Your task to perform on an android device: install app "Indeed Job Search" Image 0: 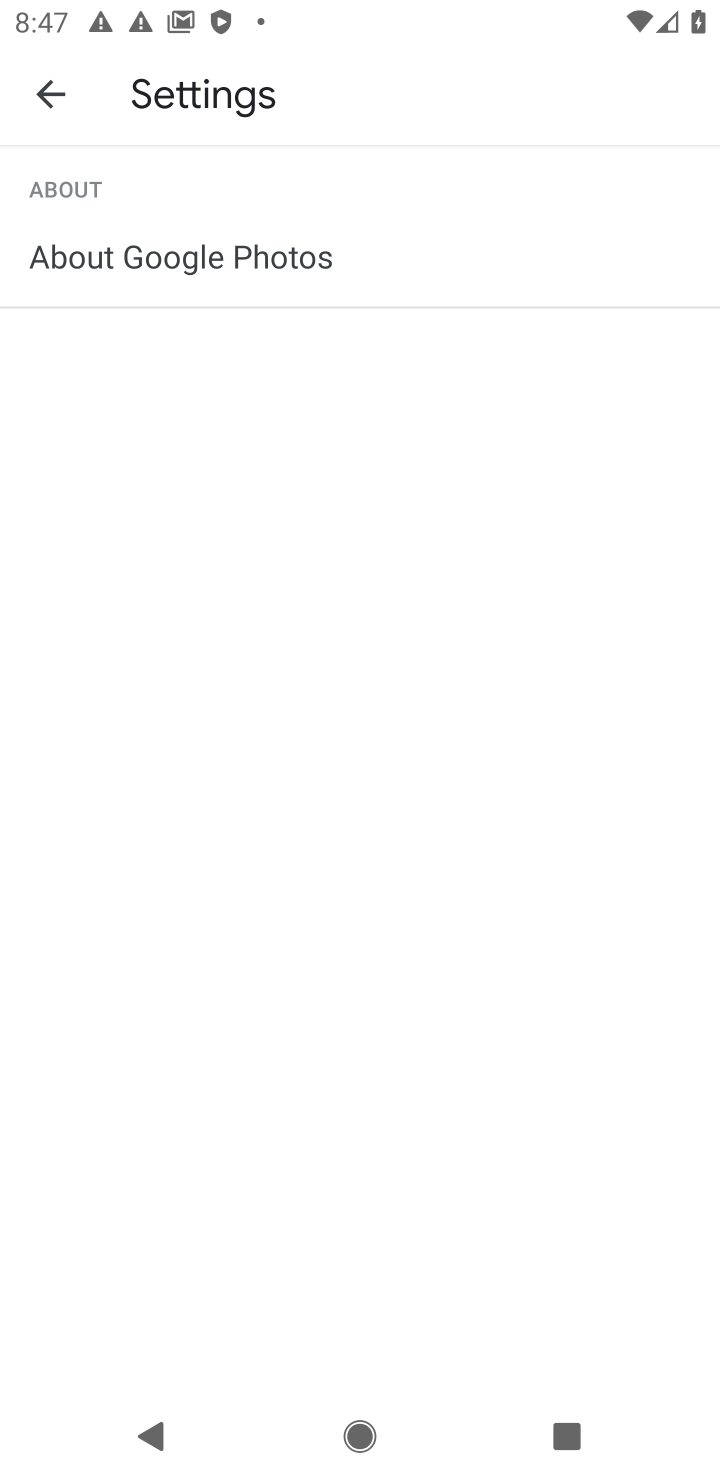
Step 0: click (57, 98)
Your task to perform on an android device: install app "Indeed Job Search" Image 1: 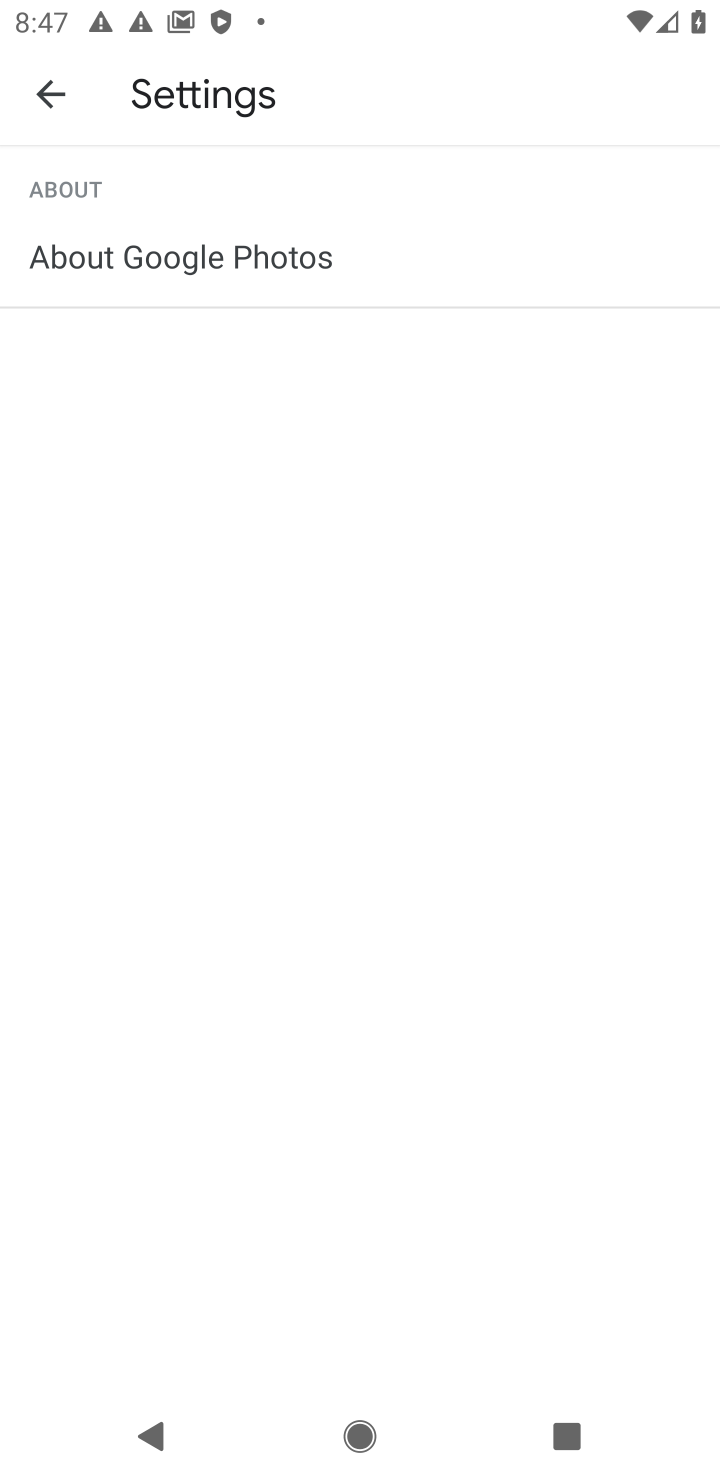
Step 1: click (57, 98)
Your task to perform on an android device: install app "Indeed Job Search" Image 2: 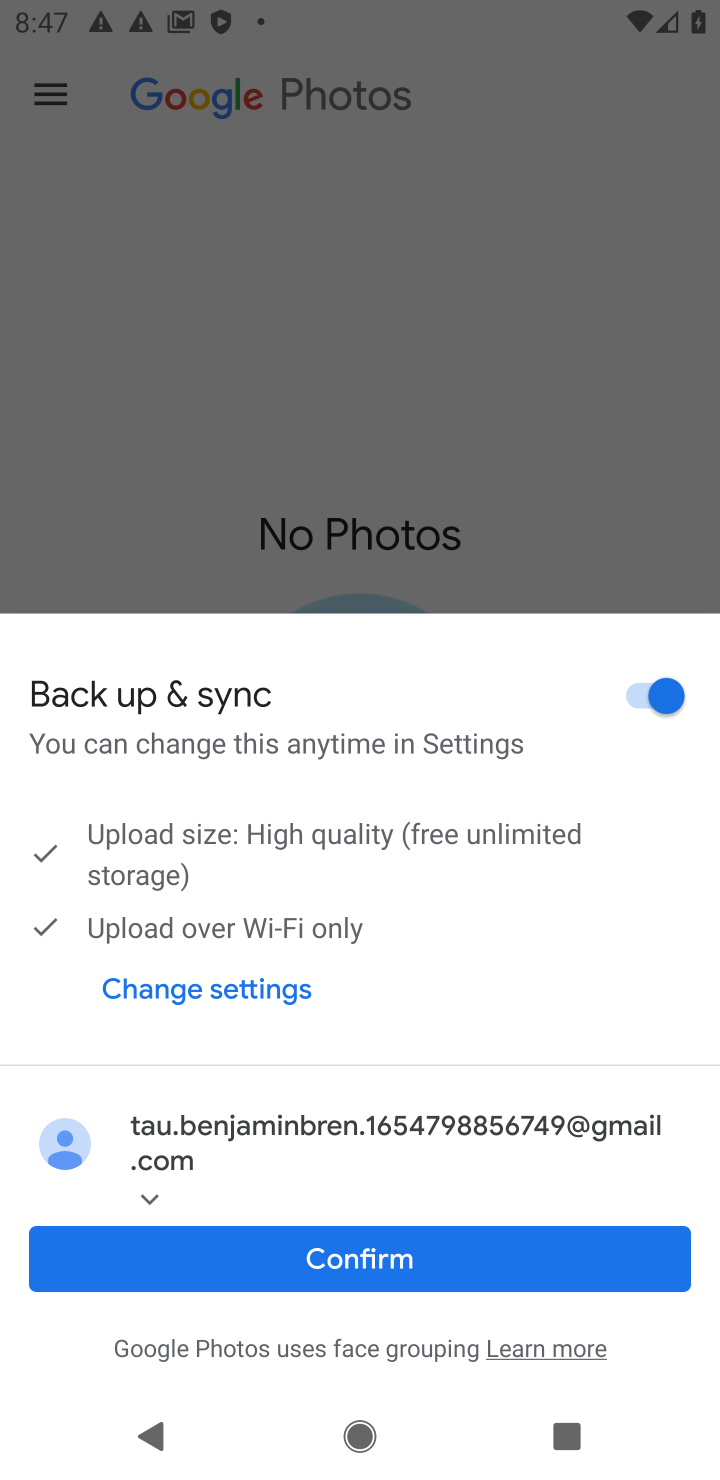
Step 2: press back button
Your task to perform on an android device: install app "Indeed Job Search" Image 3: 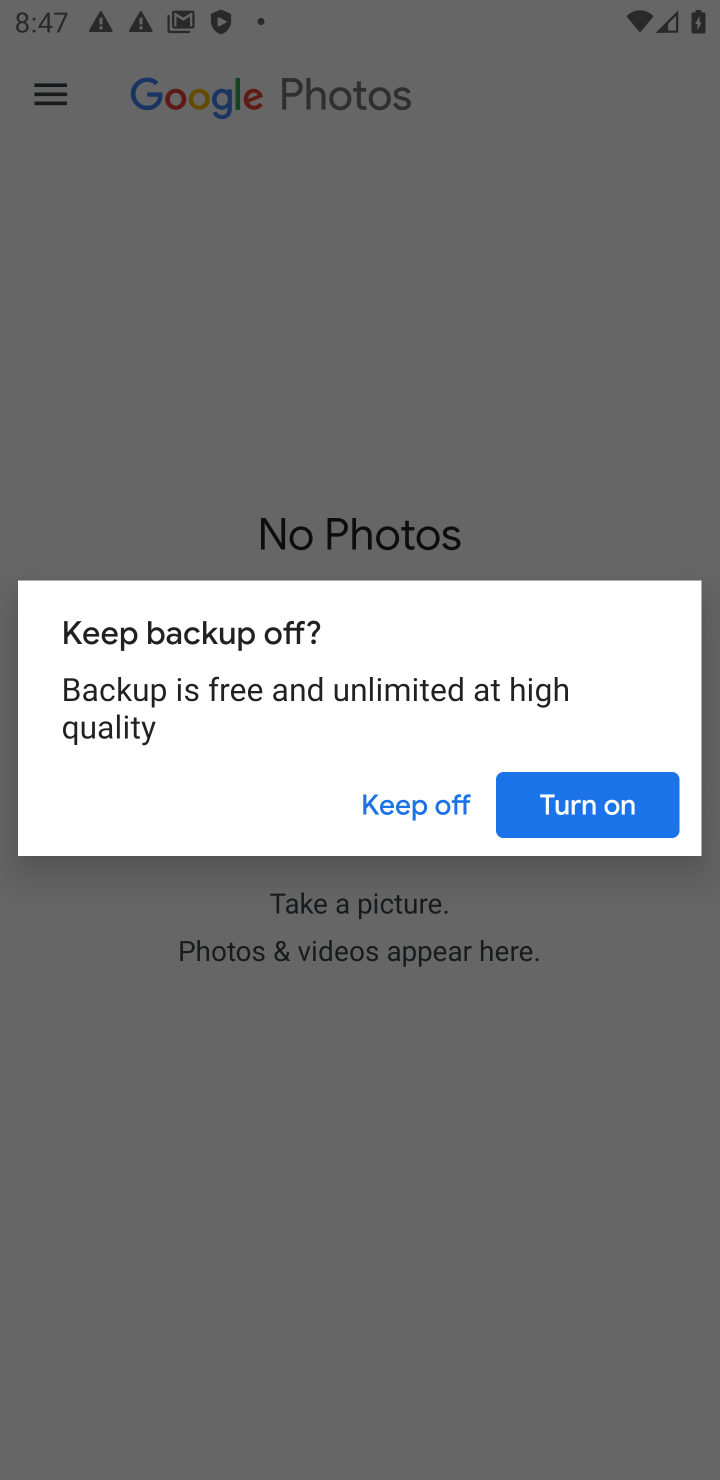
Step 3: press home button
Your task to perform on an android device: install app "Indeed Job Search" Image 4: 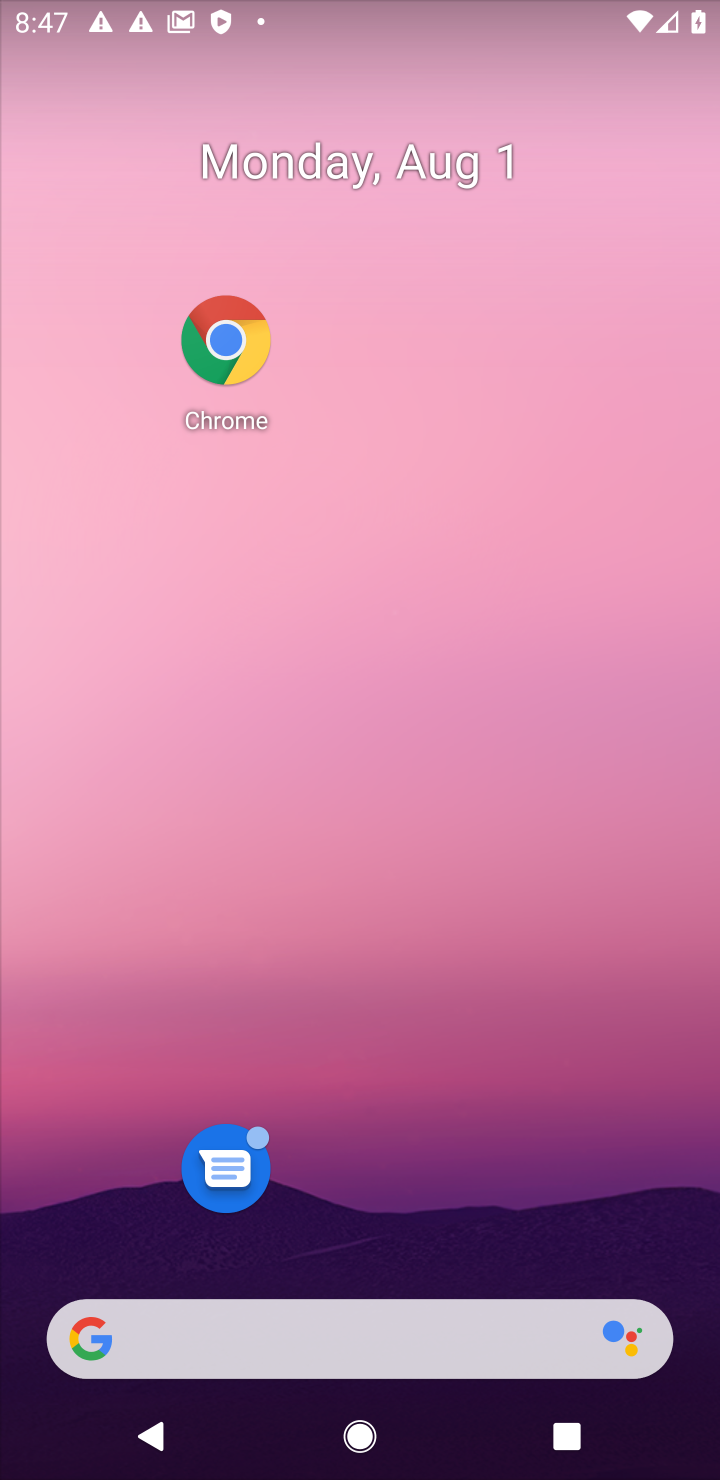
Step 4: click (375, 788)
Your task to perform on an android device: install app "Indeed Job Search" Image 5: 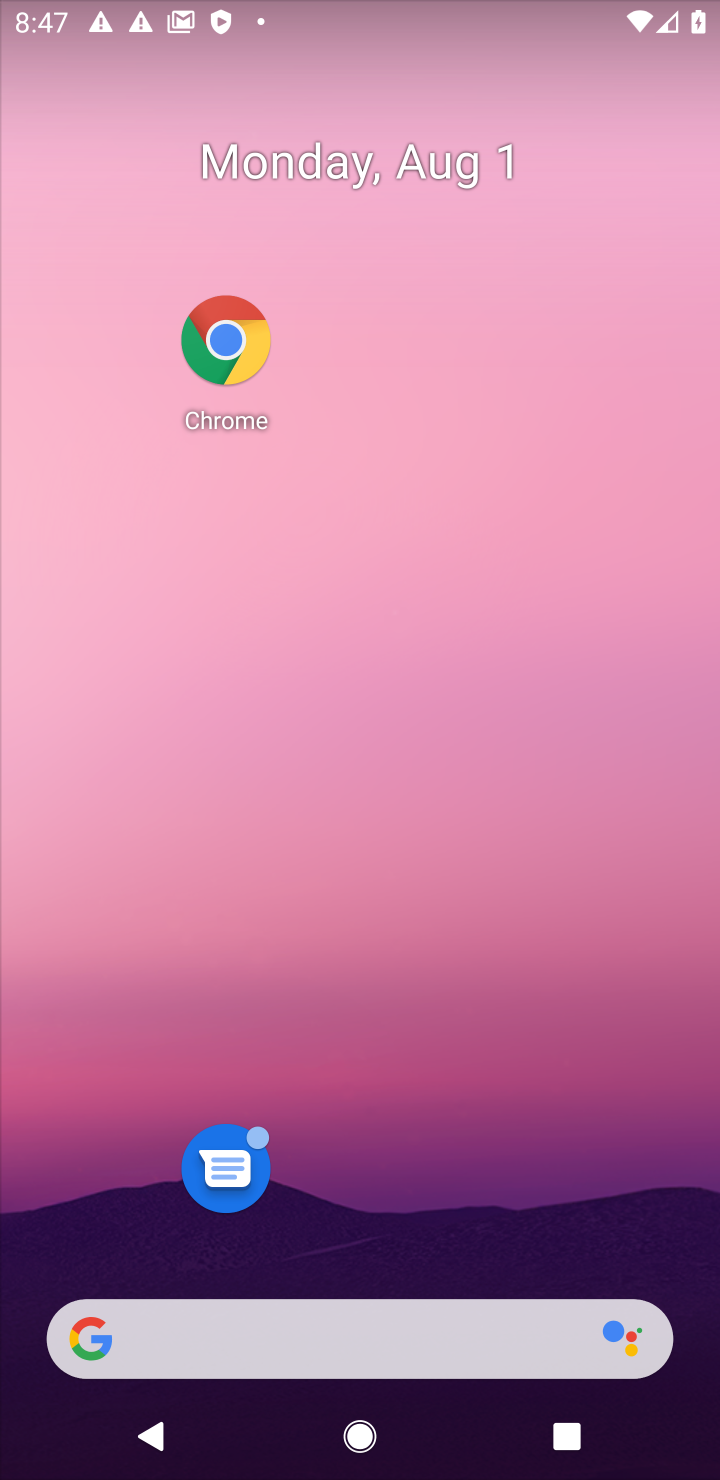
Step 5: drag from (258, 571) to (453, 114)
Your task to perform on an android device: install app "Indeed Job Search" Image 6: 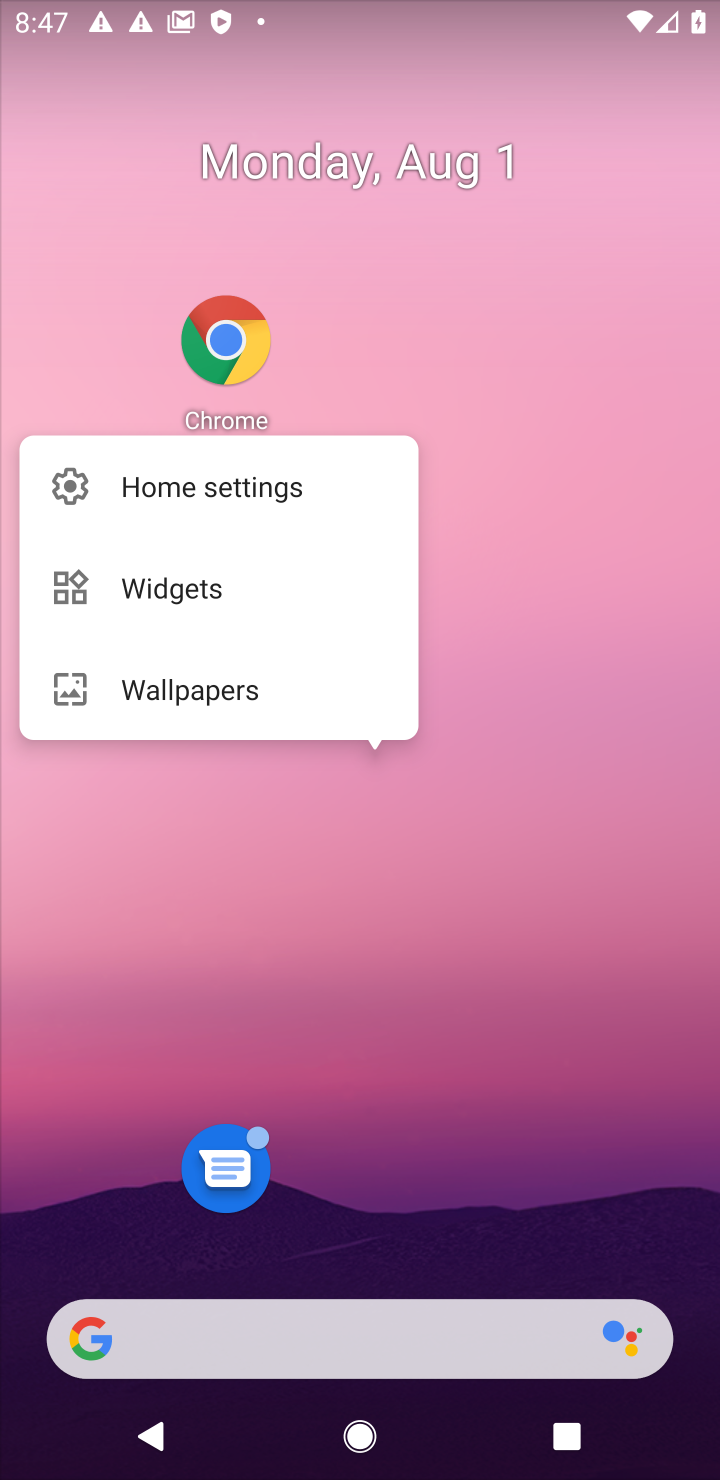
Step 6: click (191, 42)
Your task to perform on an android device: install app "Indeed Job Search" Image 7: 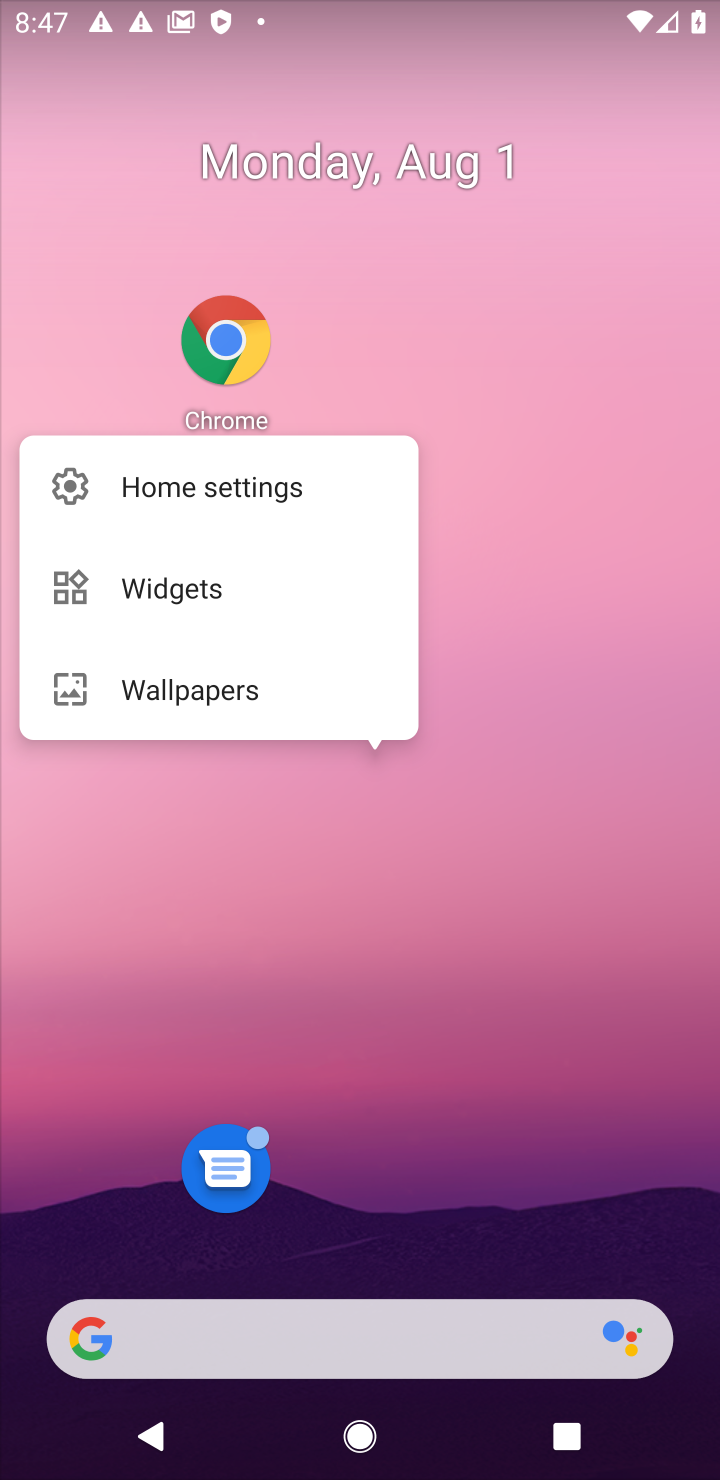
Step 7: drag from (294, 1062) to (332, 224)
Your task to perform on an android device: install app "Indeed Job Search" Image 8: 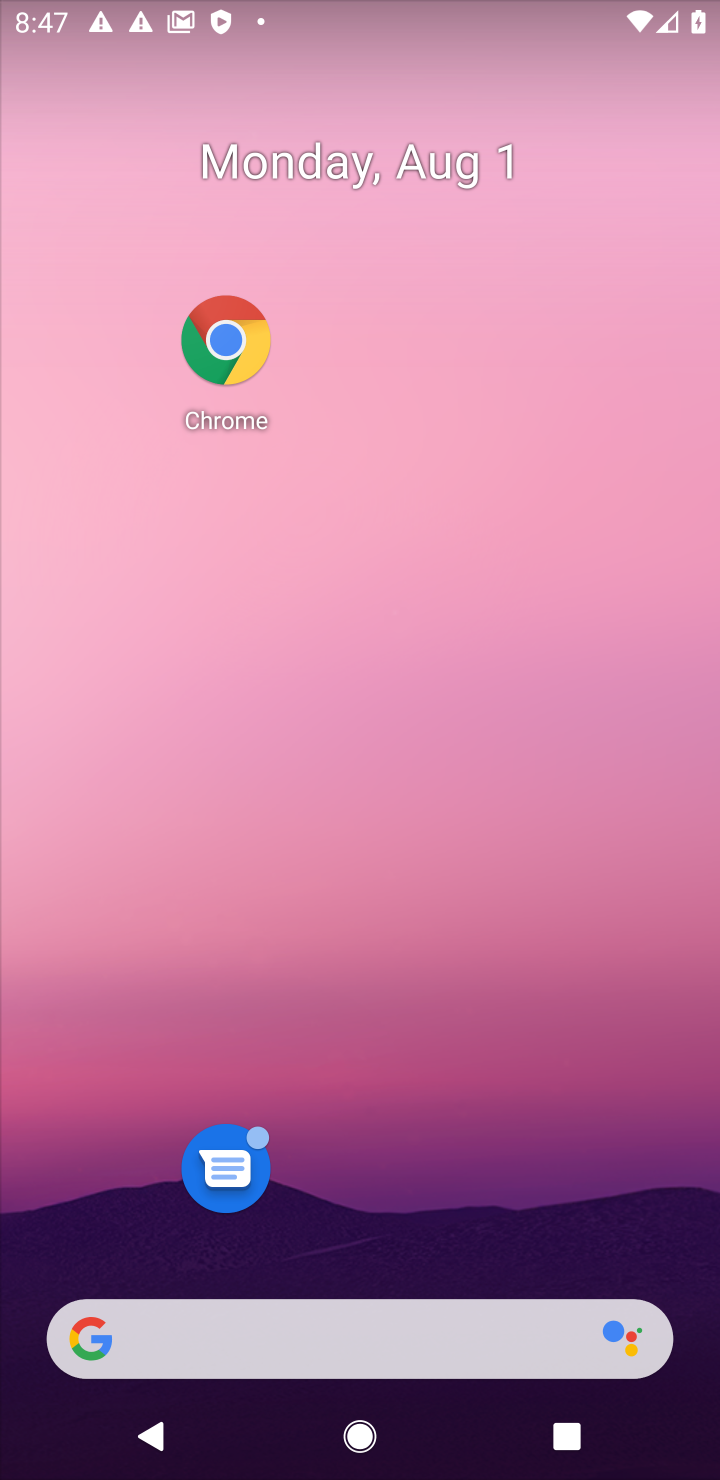
Step 8: drag from (338, 128) to (673, 0)
Your task to perform on an android device: install app "Indeed Job Search" Image 9: 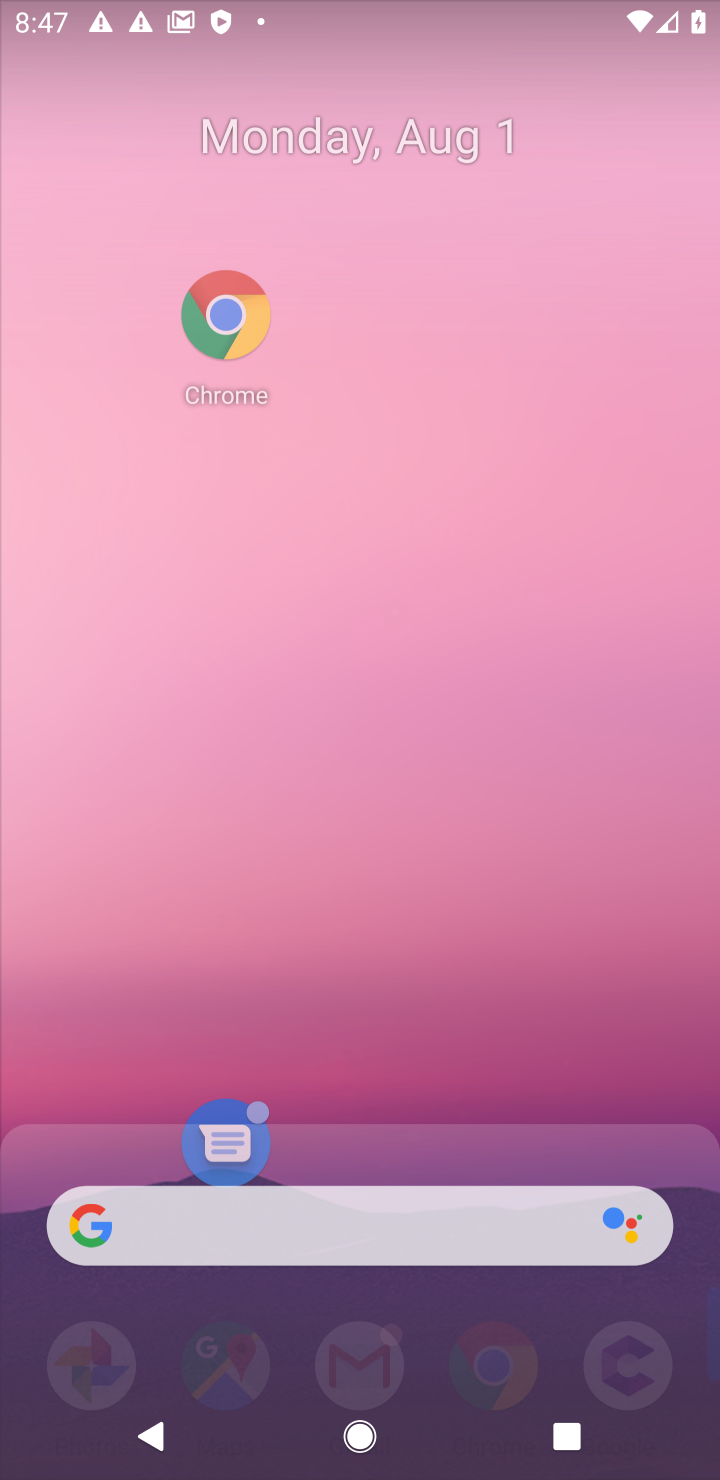
Step 9: drag from (388, 152) to (258, 145)
Your task to perform on an android device: install app "Indeed Job Search" Image 10: 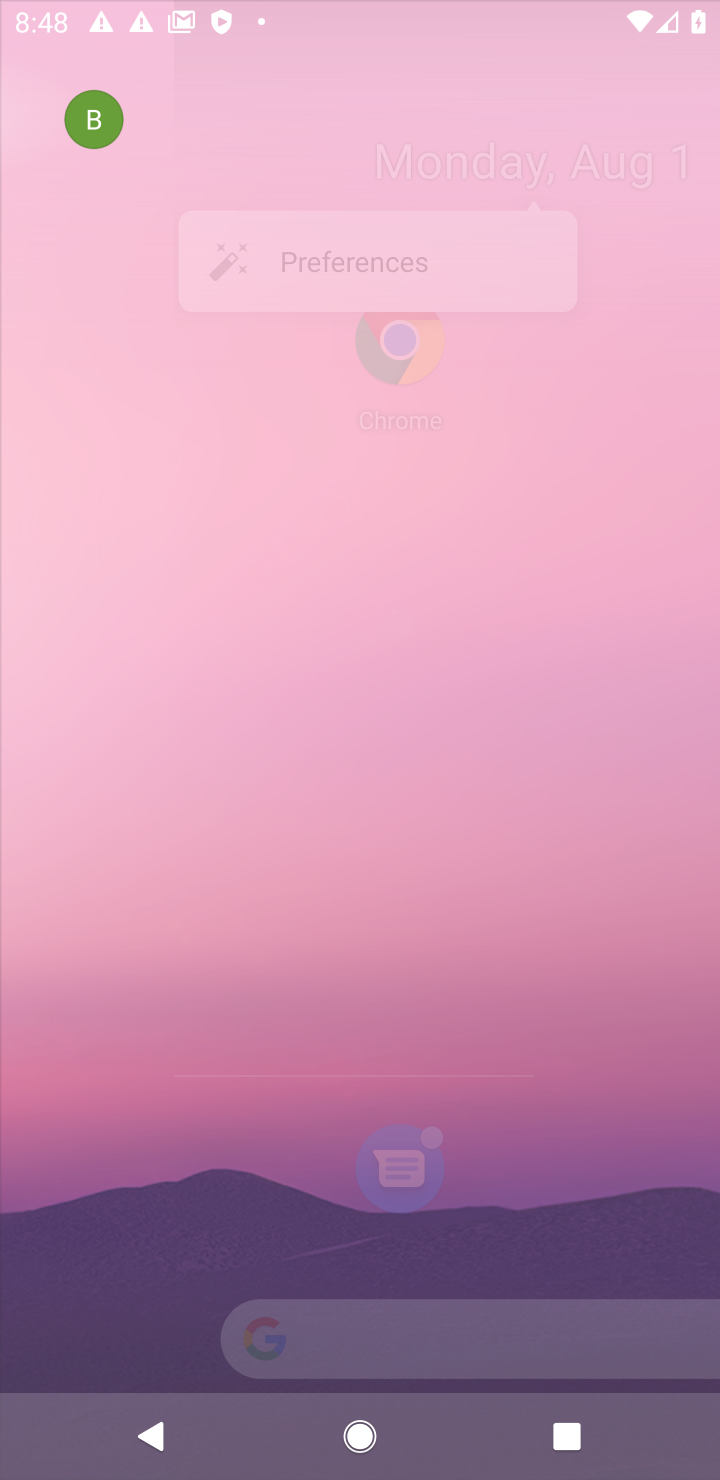
Step 10: drag from (200, 345) to (332, 398)
Your task to perform on an android device: install app "Indeed Job Search" Image 11: 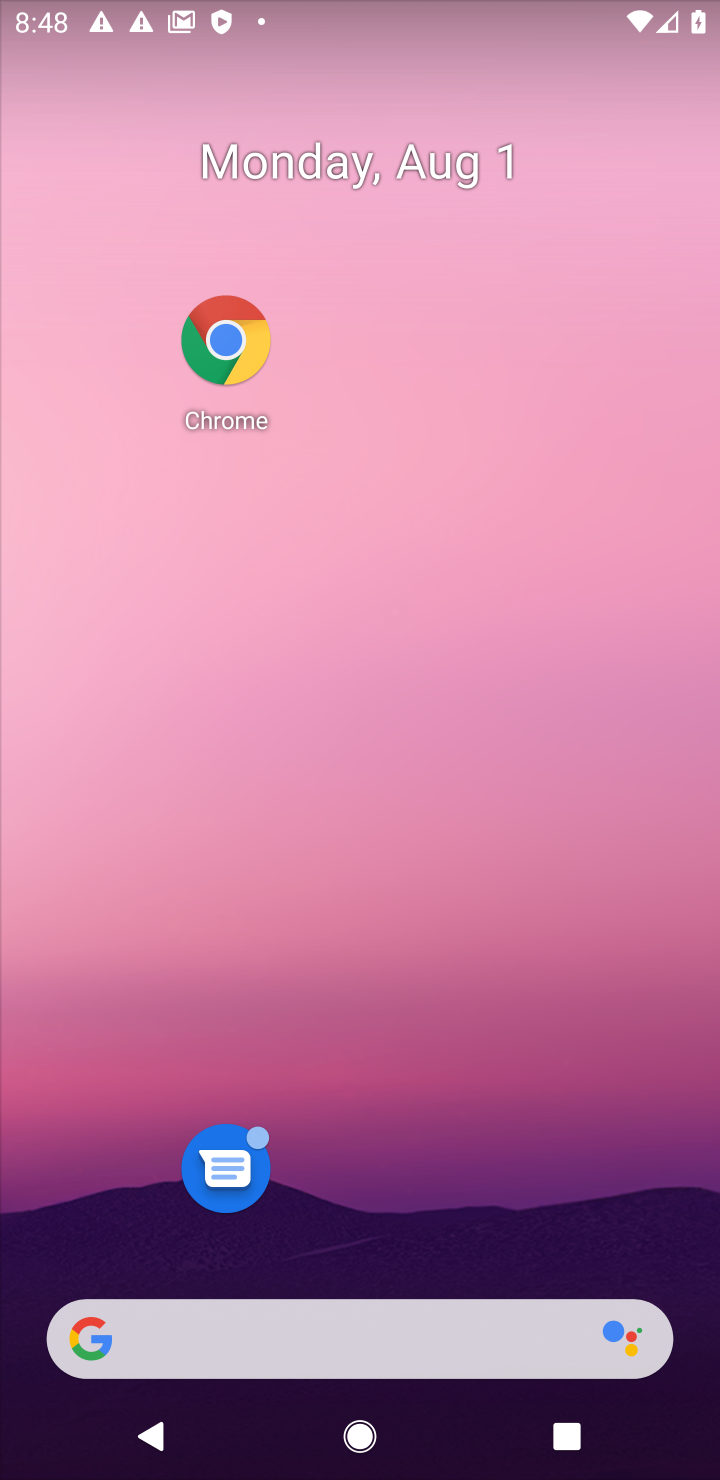
Step 11: drag from (221, 851) to (207, 221)
Your task to perform on an android device: install app "Indeed Job Search" Image 12: 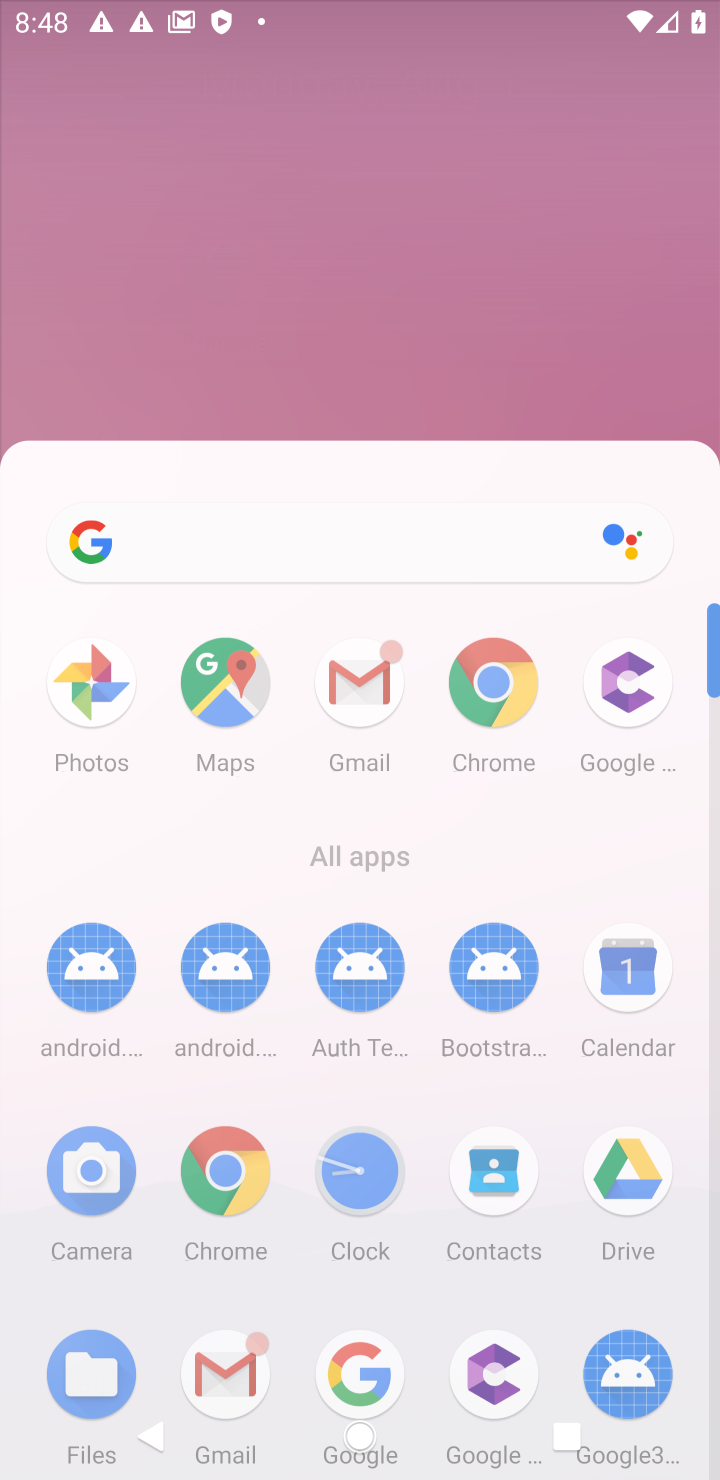
Step 12: drag from (373, 398) to (406, 8)
Your task to perform on an android device: install app "Indeed Job Search" Image 13: 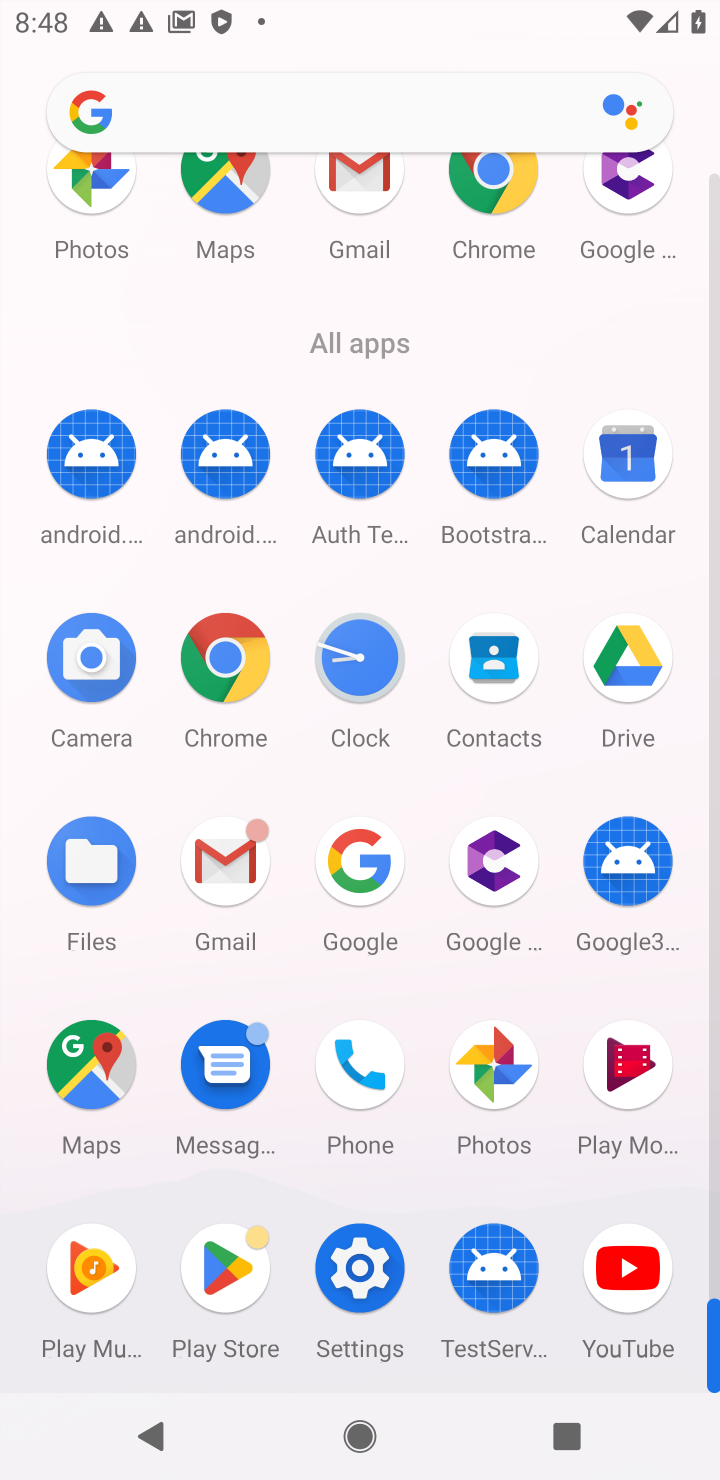
Step 13: click (221, 1283)
Your task to perform on an android device: install app "Indeed Job Search" Image 14: 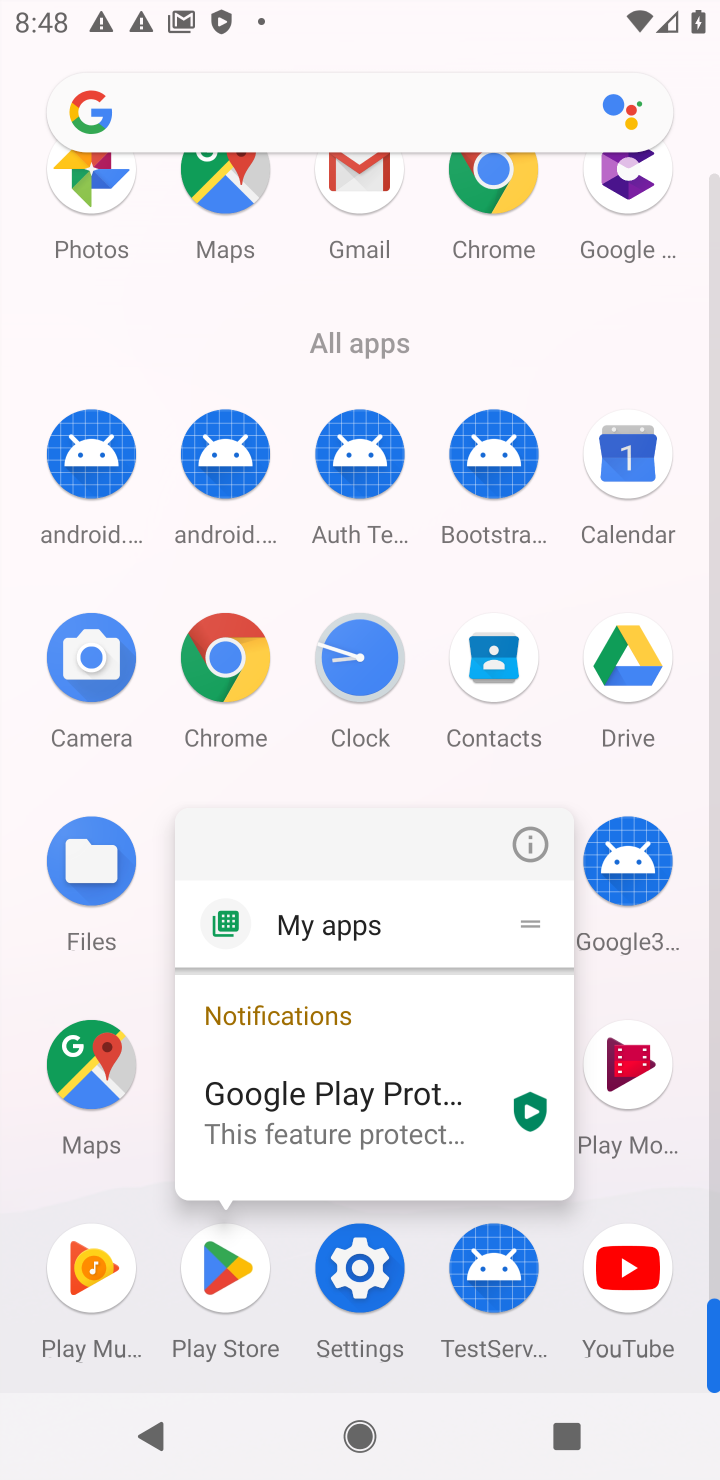
Step 14: click (235, 1293)
Your task to perform on an android device: install app "Indeed Job Search" Image 15: 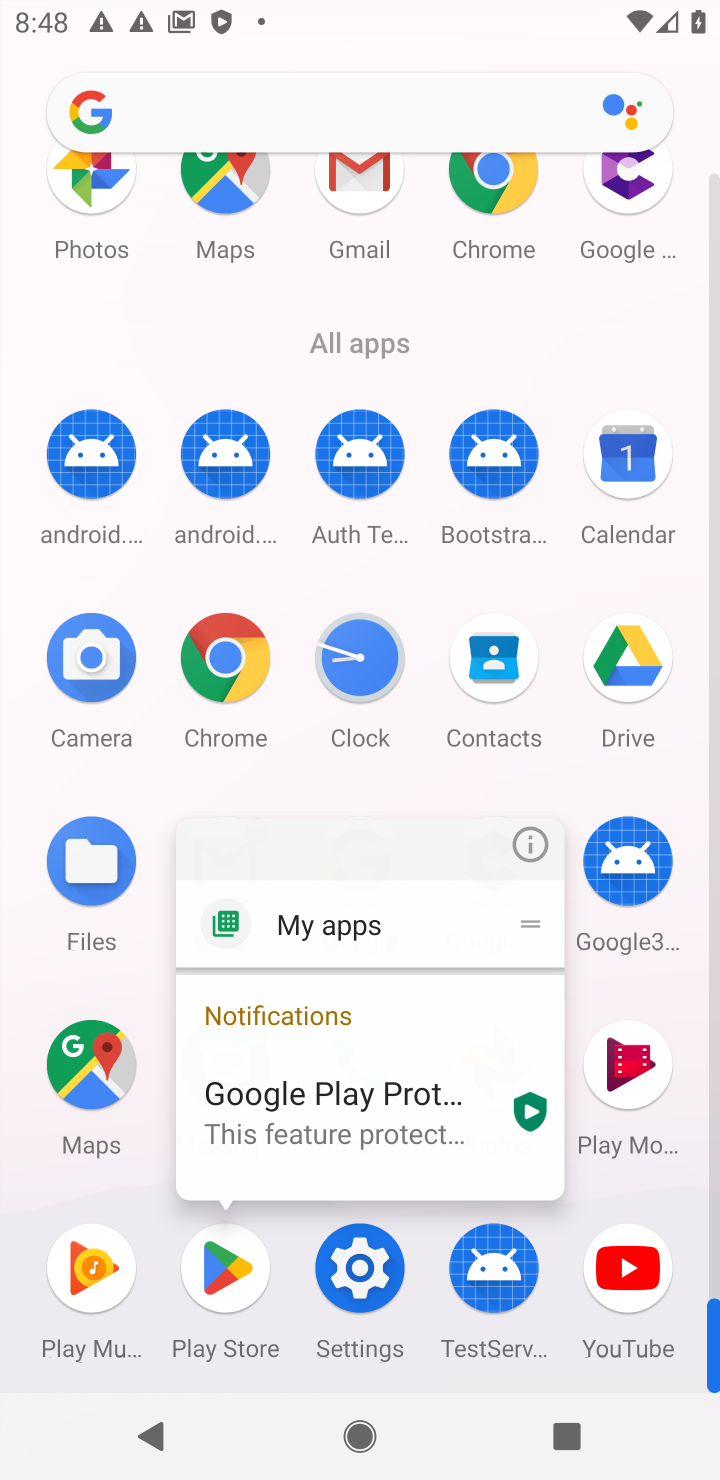
Step 15: click (233, 1295)
Your task to perform on an android device: install app "Indeed Job Search" Image 16: 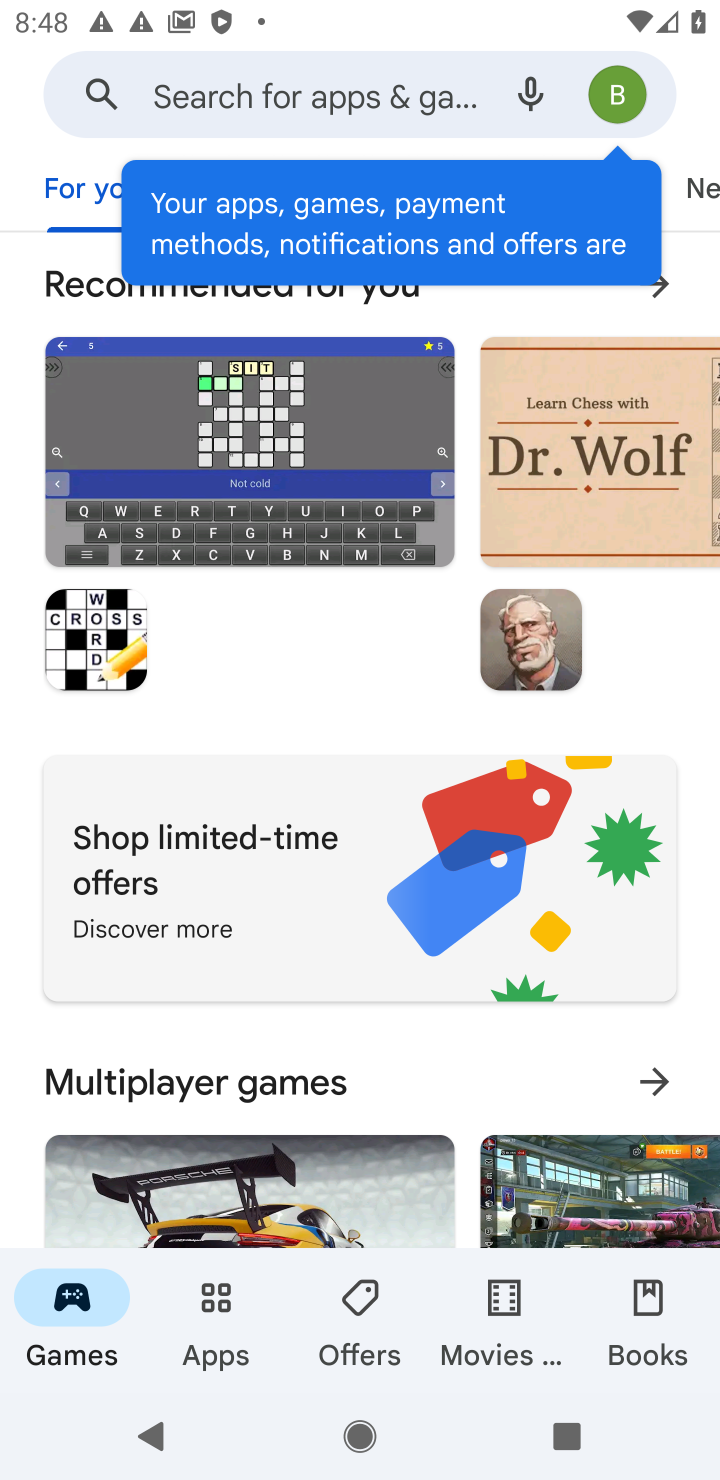
Step 16: click (198, 120)
Your task to perform on an android device: install app "Indeed Job Search" Image 17: 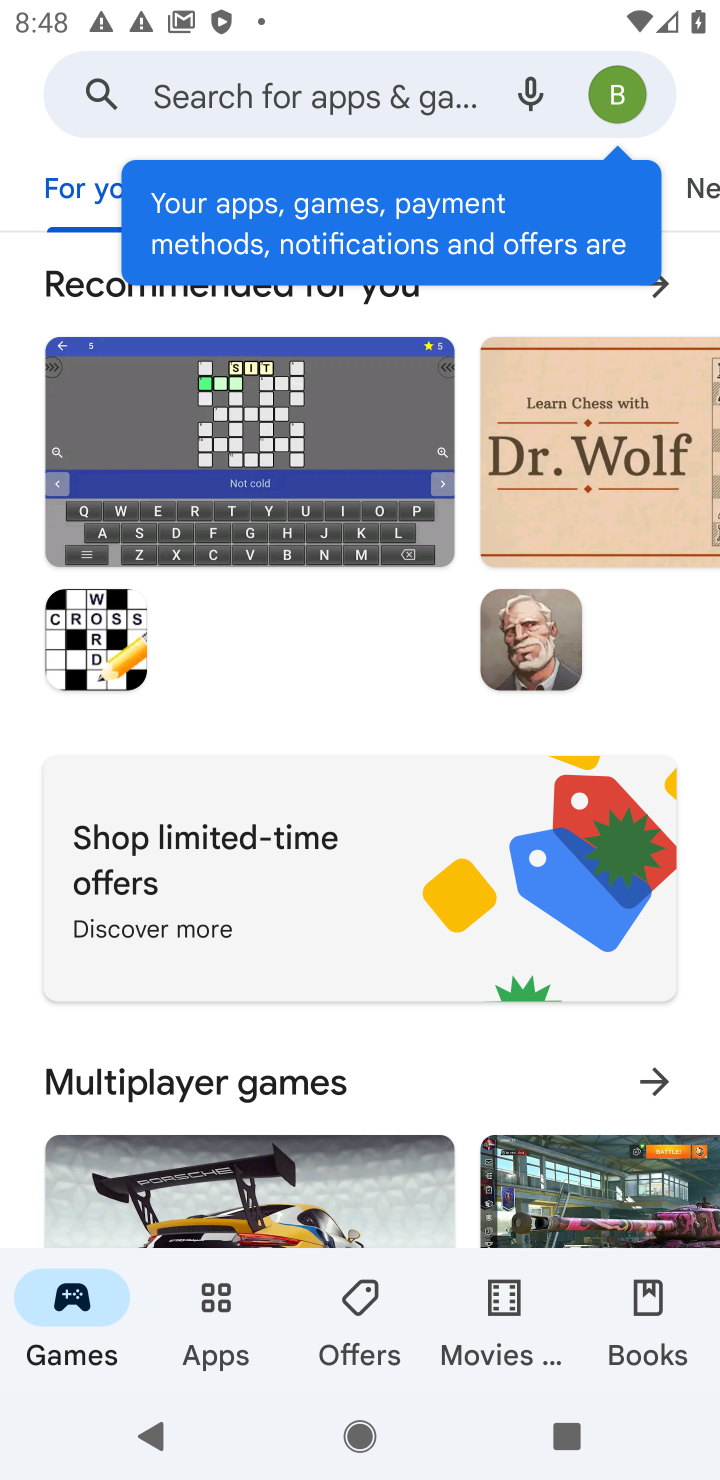
Step 17: click (200, 98)
Your task to perform on an android device: install app "Indeed Job Search" Image 18: 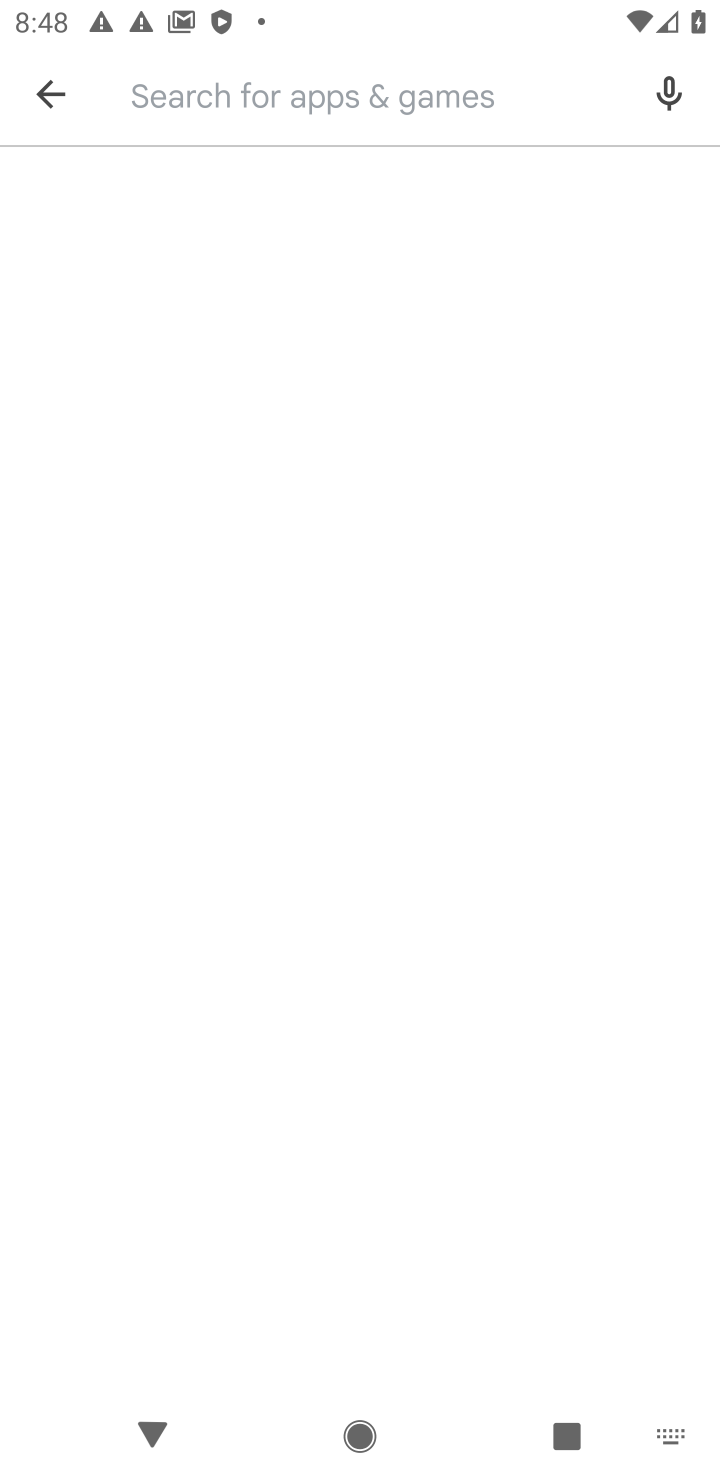
Step 18: click (202, 98)
Your task to perform on an android device: install app "Indeed Job Search" Image 19: 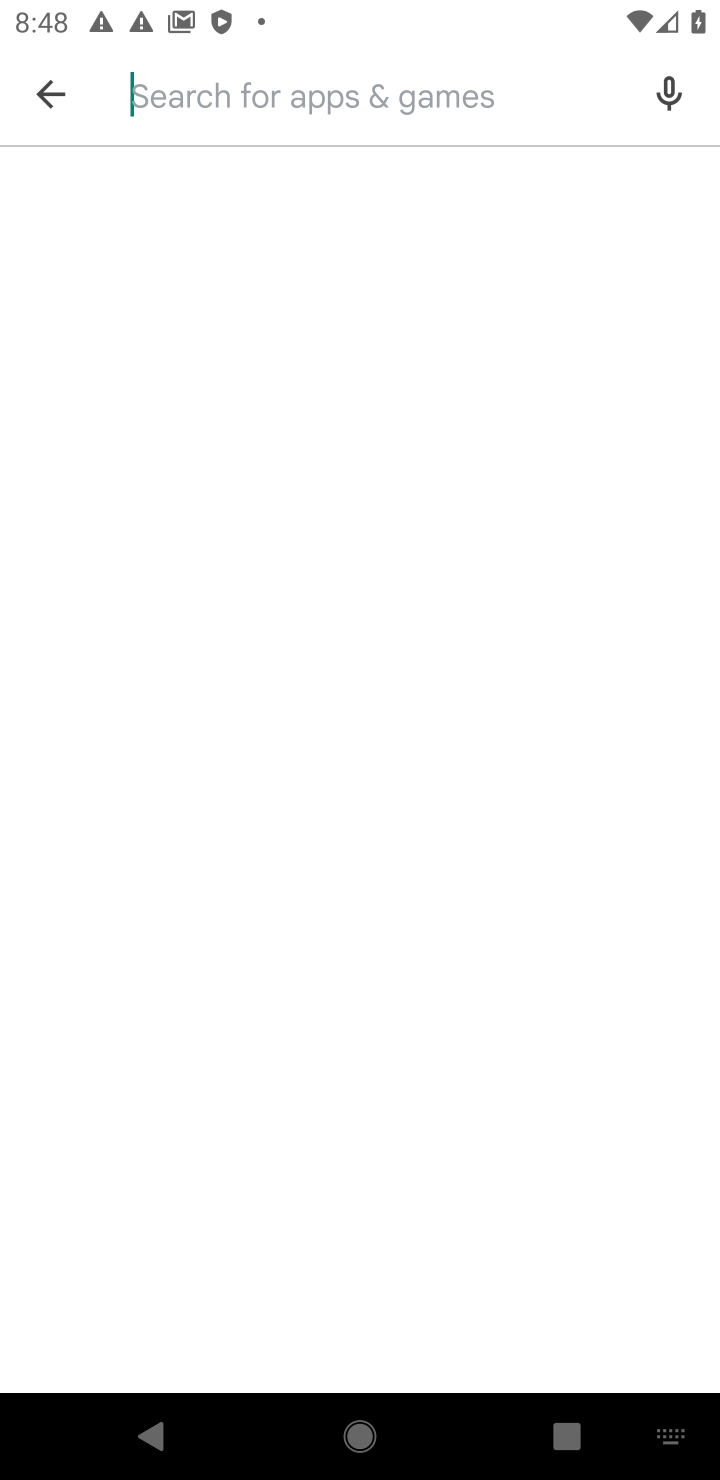
Step 19: type "Indeed job search"
Your task to perform on an android device: install app "Indeed Job Search" Image 20: 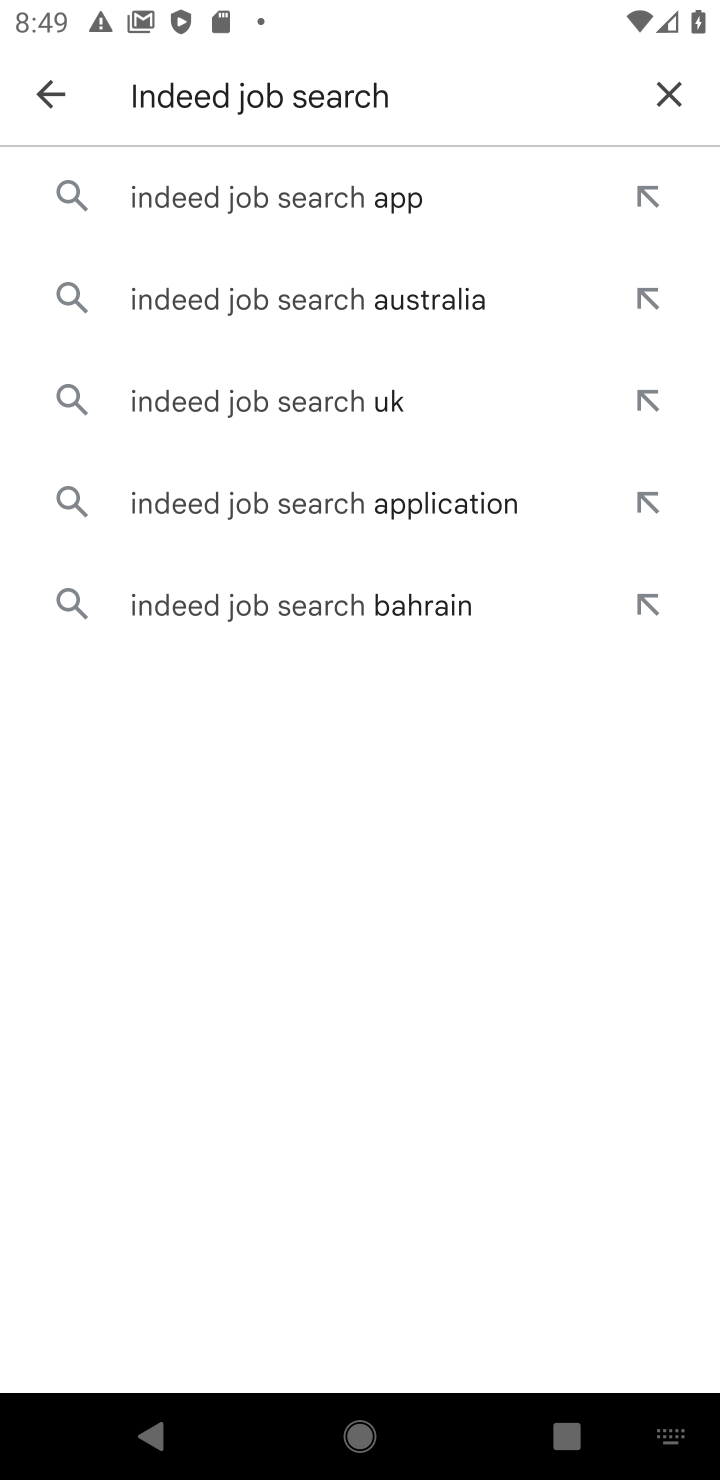
Step 20: click (243, 181)
Your task to perform on an android device: install app "Indeed Job Search" Image 21: 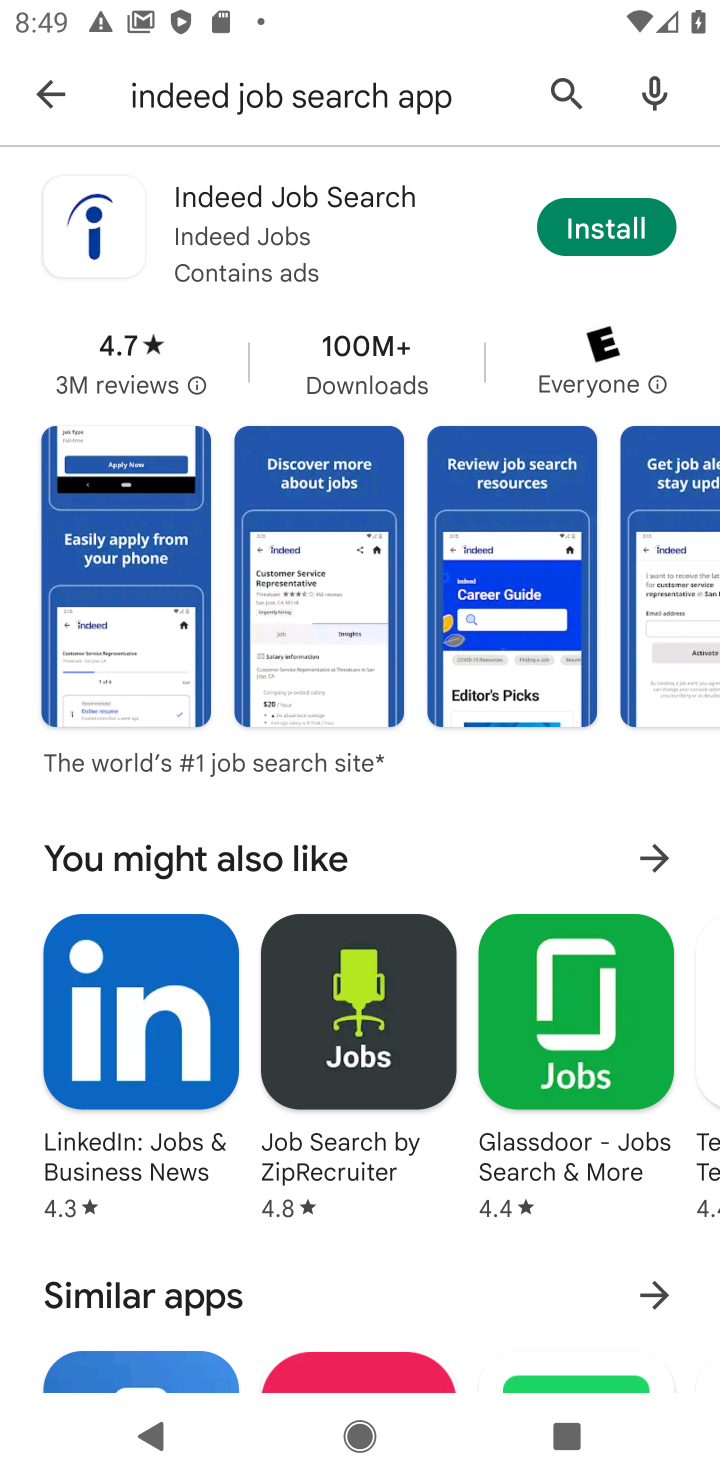
Step 21: click (589, 218)
Your task to perform on an android device: install app "Indeed Job Search" Image 22: 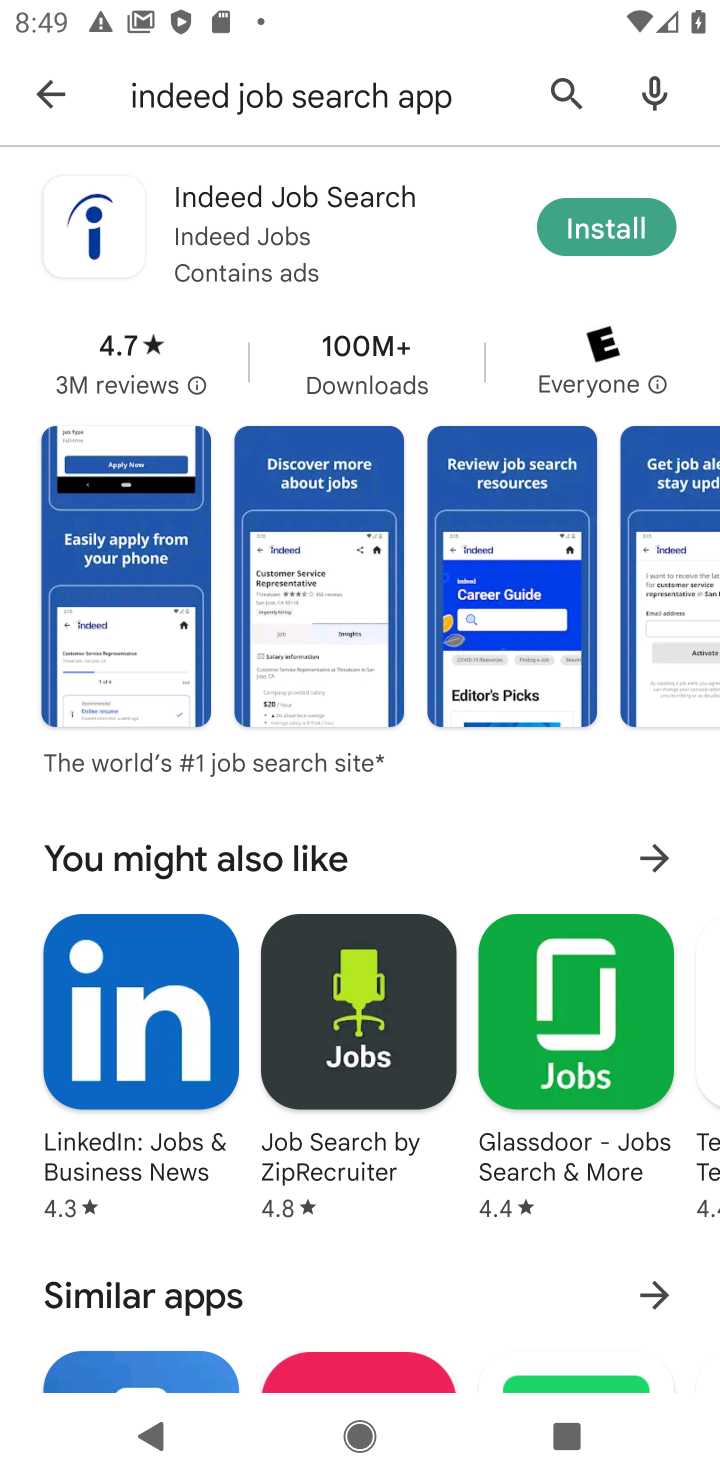
Step 22: click (596, 274)
Your task to perform on an android device: install app "Indeed Job Search" Image 23: 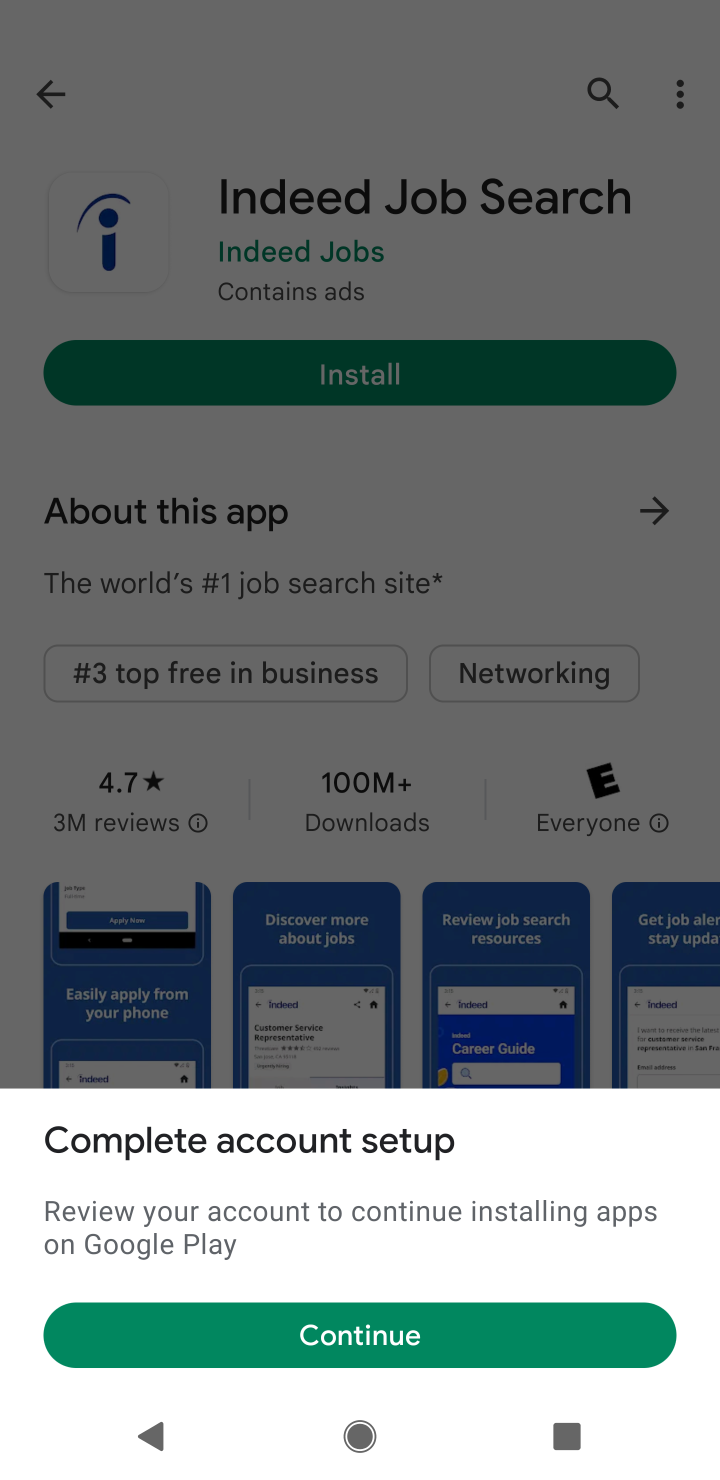
Step 23: click (349, 1316)
Your task to perform on an android device: install app "Indeed Job Search" Image 24: 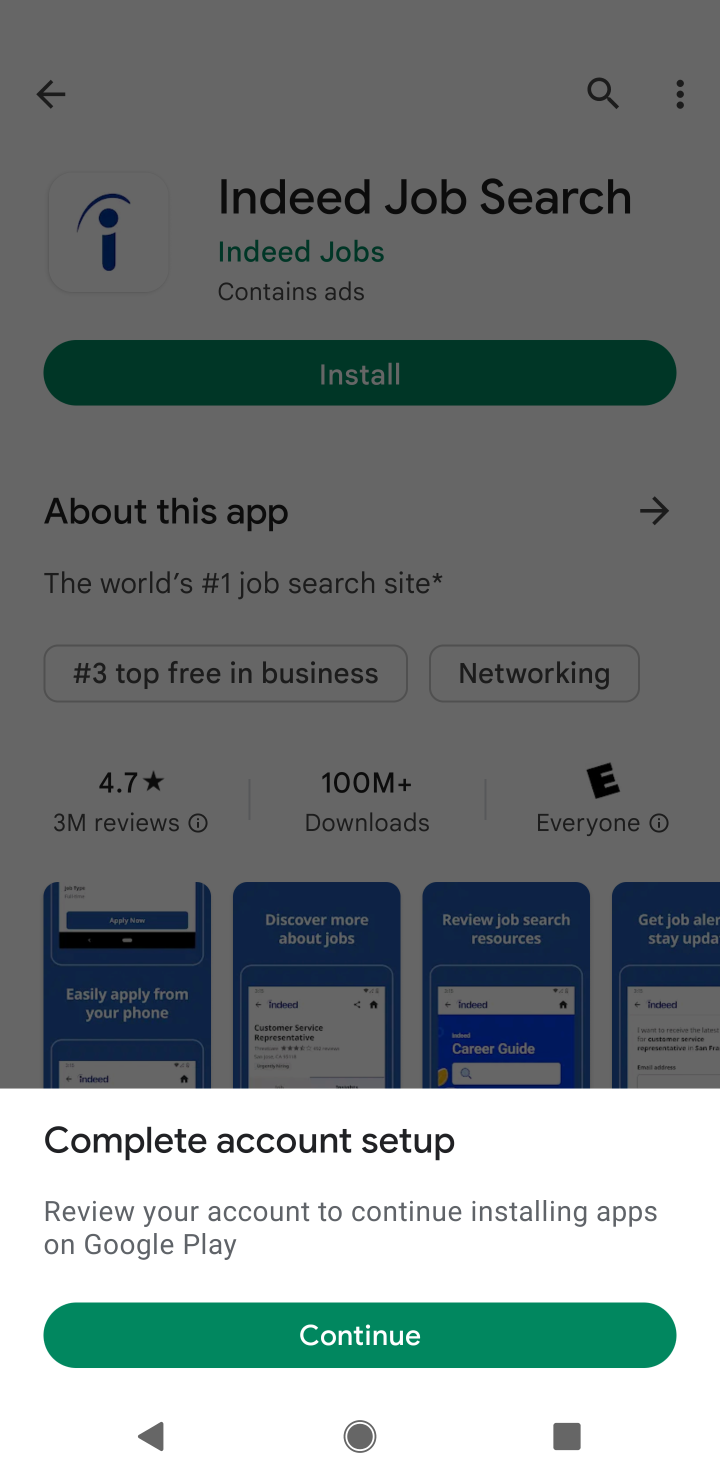
Step 24: click (342, 1334)
Your task to perform on an android device: install app "Indeed Job Search" Image 25: 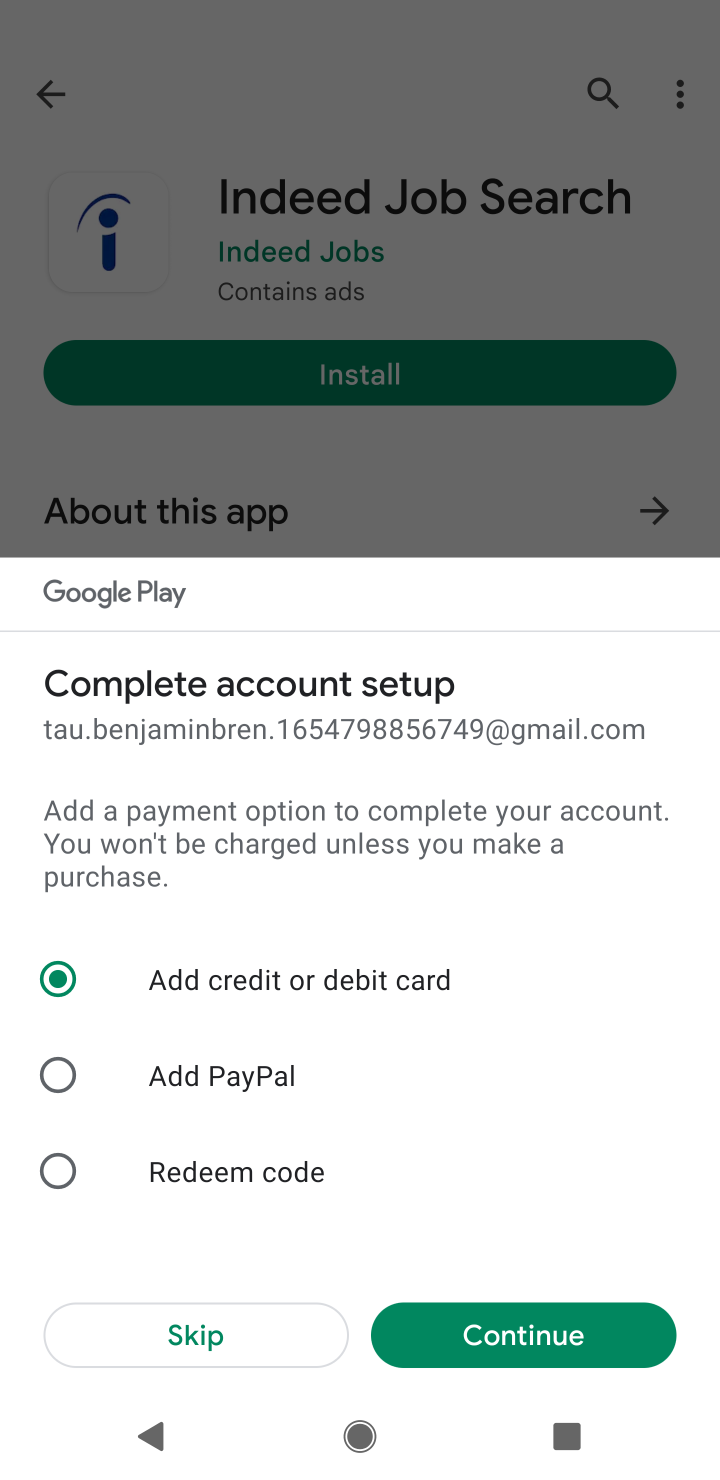
Step 25: click (231, 1346)
Your task to perform on an android device: install app "Indeed Job Search" Image 26: 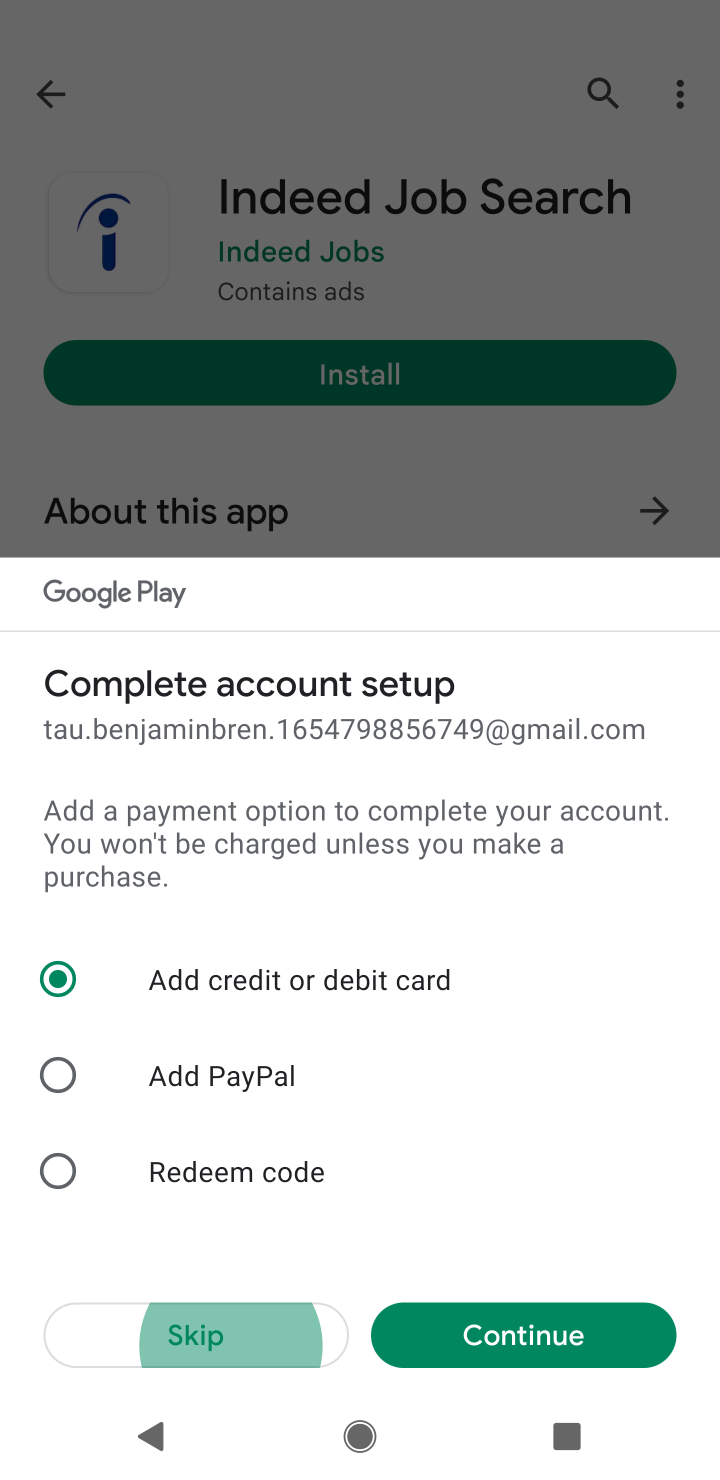
Step 26: click (231, 1346)
Your task to perform on an android device: install app "Indeed Job Search" Image 27: 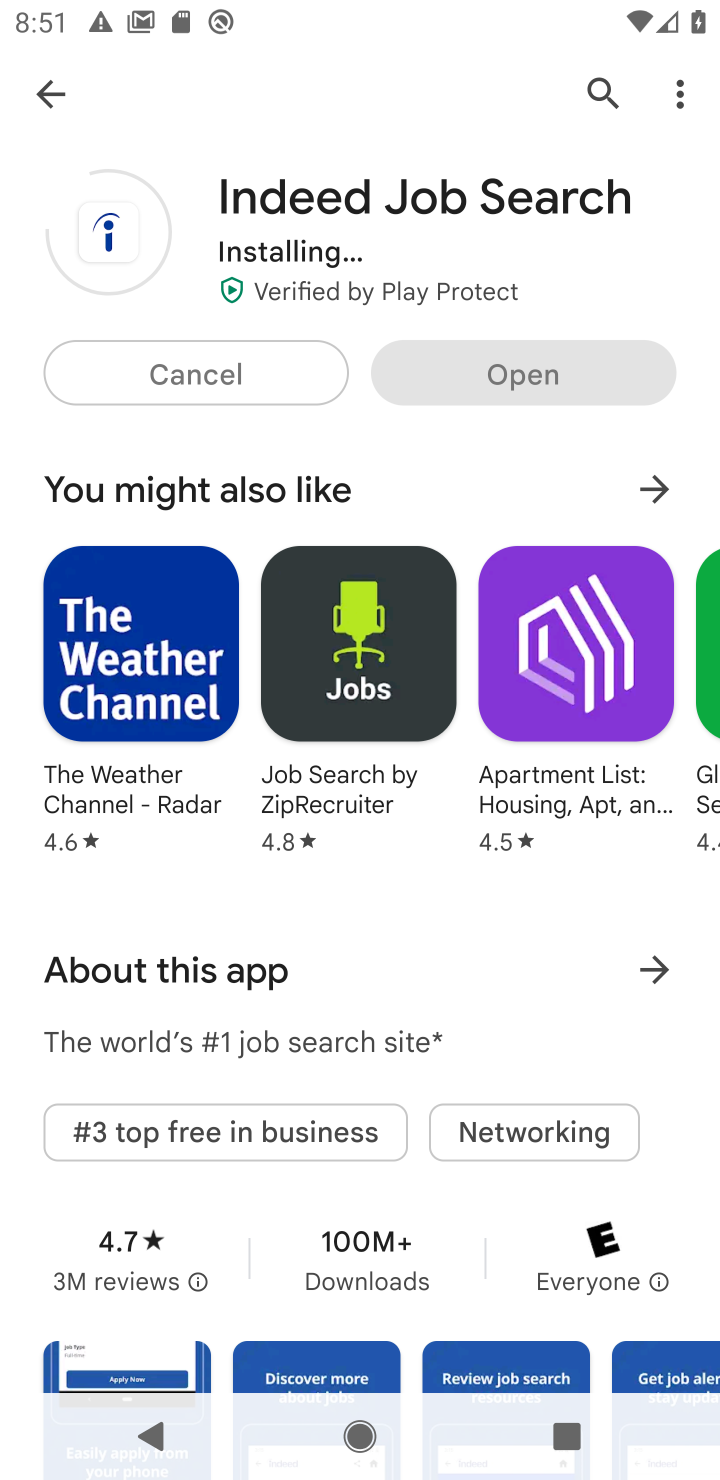
Step 27: click (560, 360)
Your task to perform on an android device: install app "Indeed Job Search" Image 28: 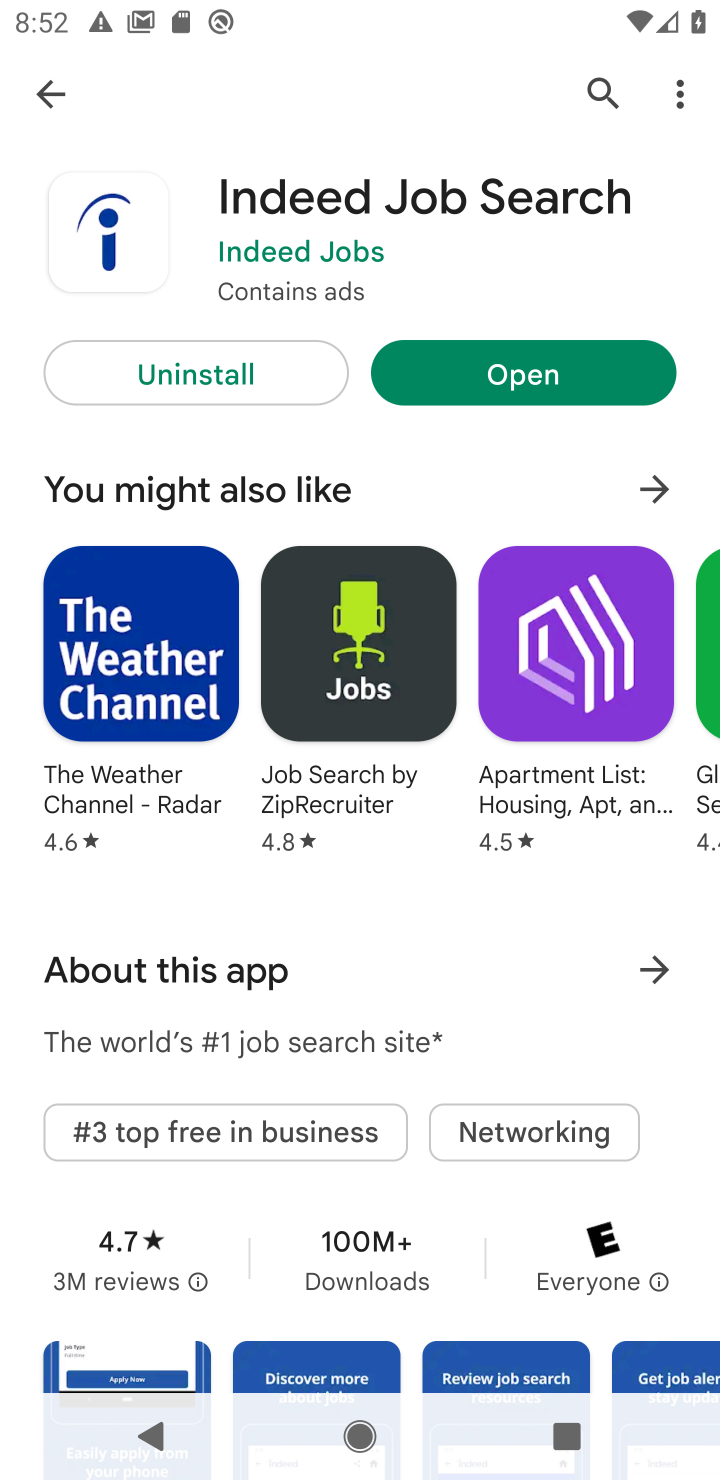
Step 28: click (569, 372)
Your task to perform on an android device: install app "Indeed Job Search" Image 29: 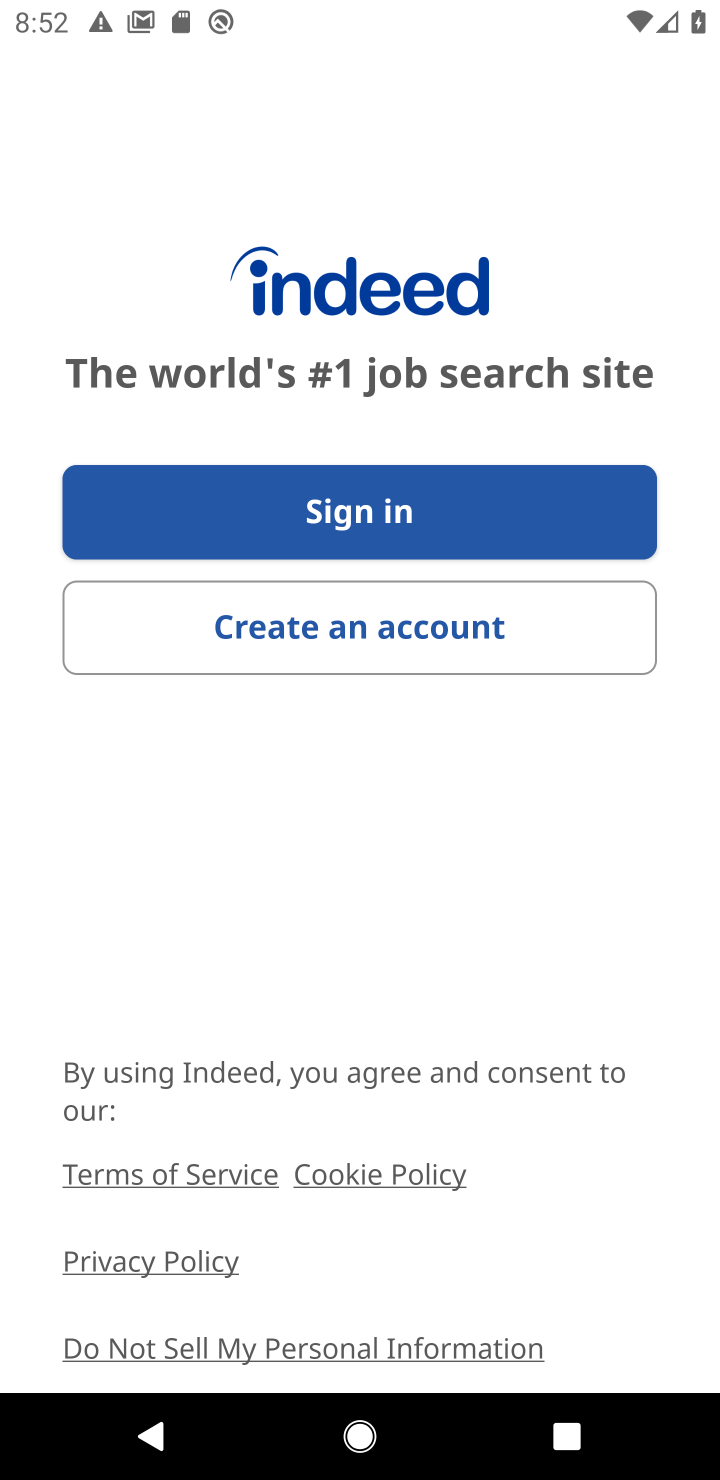
Step 29: click (351, 501)
Your task to perform on an android device: install app "Indeed Job Search" Image 30: 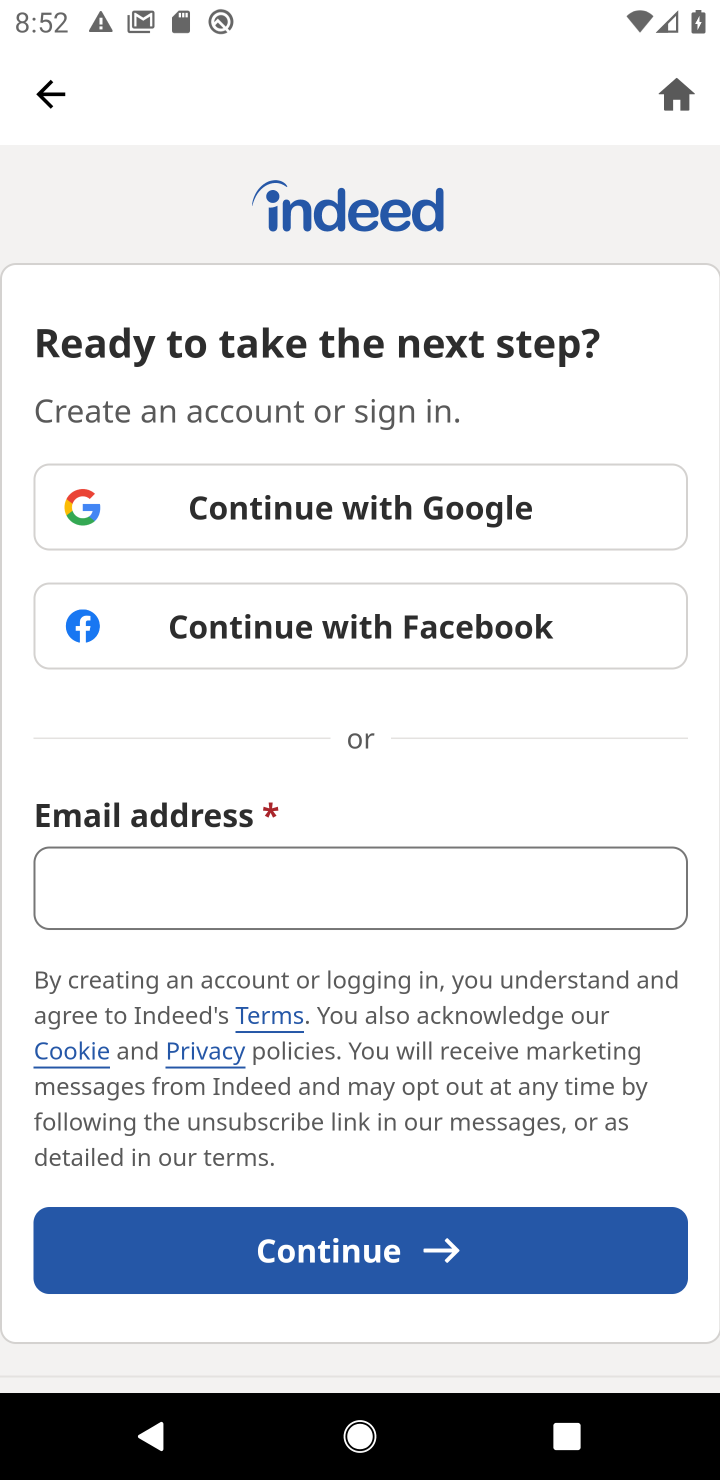
Step 30: task complete